Your task to perform on an android device: Open calendar and show me the first week of next month Image 0: 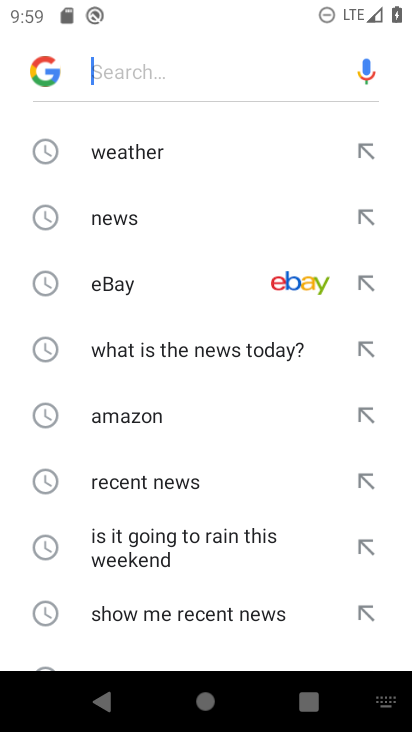
Step 0: press home button
Your task to perform on an android device: Open calendar and show me the first week of next month Image 1: 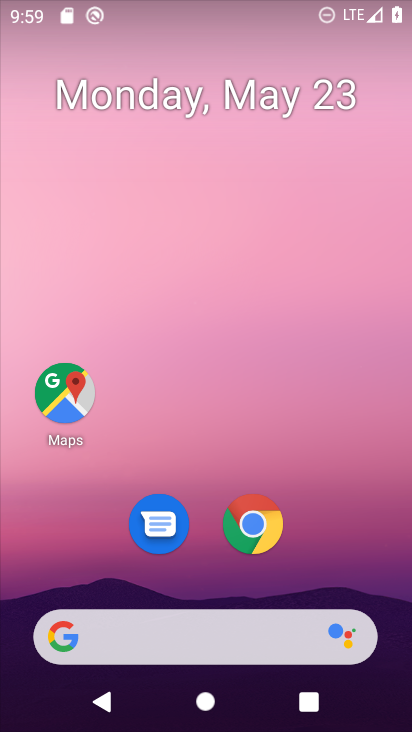
Step 1: drag from (203, 466) to (211, 54)
Your task to perform on an android device: Open calendar and show me the first week of next month Image 2: 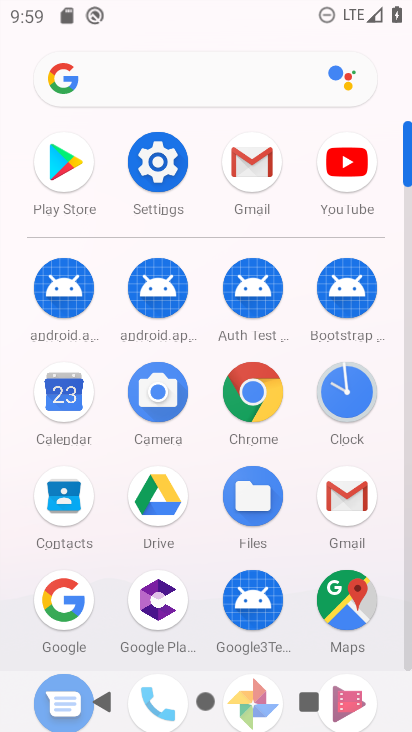
Step 2: click (61, 396)
Your task to perform on an android device: Open calendar and show me the first week of next month Image 3: 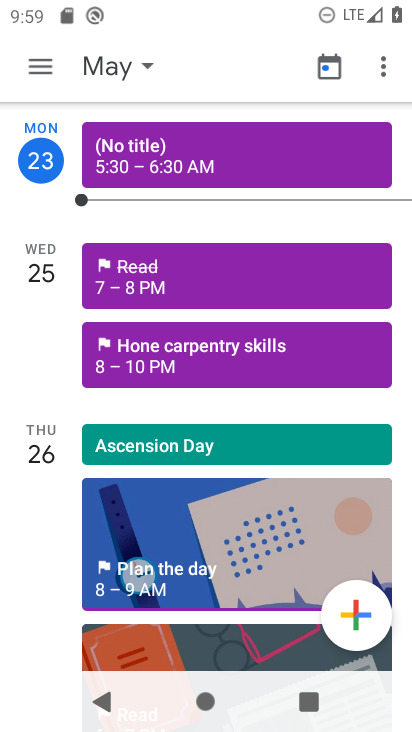
Step 3: click (43, 62)
Your task to perform on an android device: Open calendar and show me the first week of next month Image 4: 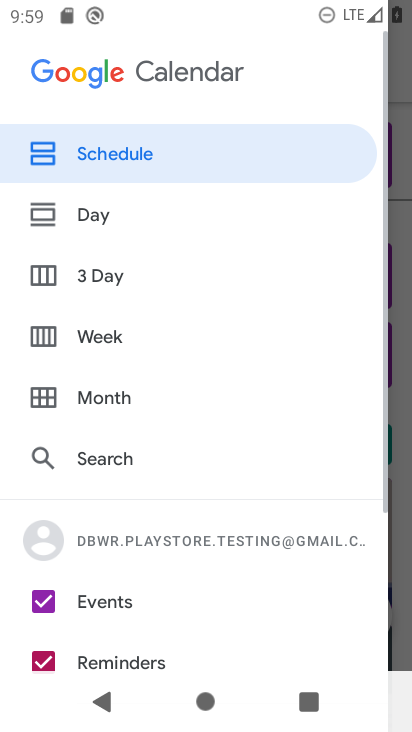
Step 4: click (43, 343)
Your task to perform on an android device: Open calendar and show me the first week of next month Image 5: 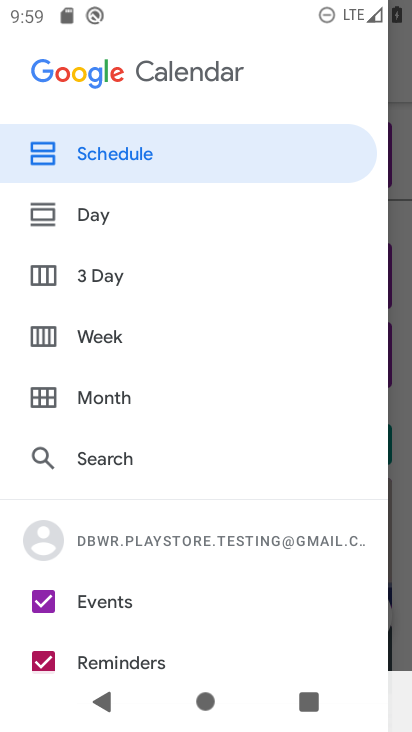
Step 5: click (48, 328)
Your task to perform on an android device: Open calendar and show me the first week of next month Image 6: 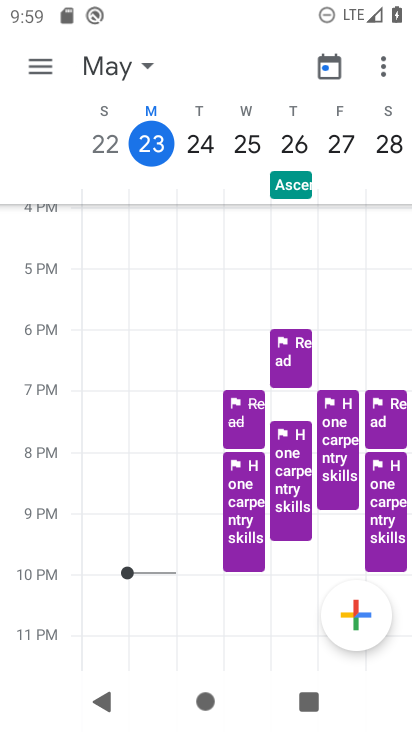
Step 6: task complete